Your task to perform on an android device: uninstall "Google Sheets" Image 0: 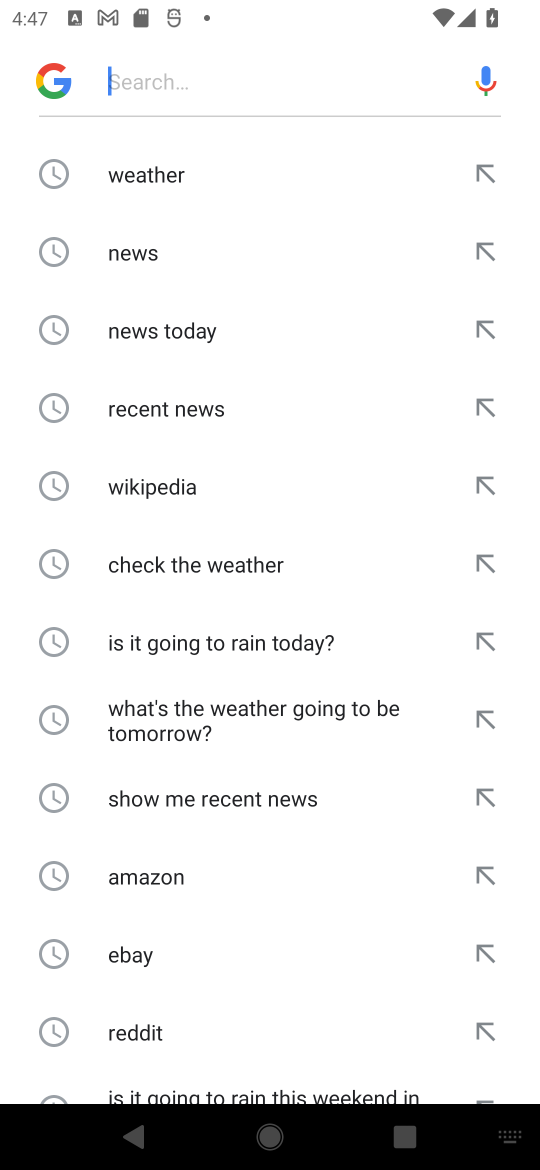
Step 0: press home button
Your task to perform on an android device: uninstall "Google Sheets" Image 1: 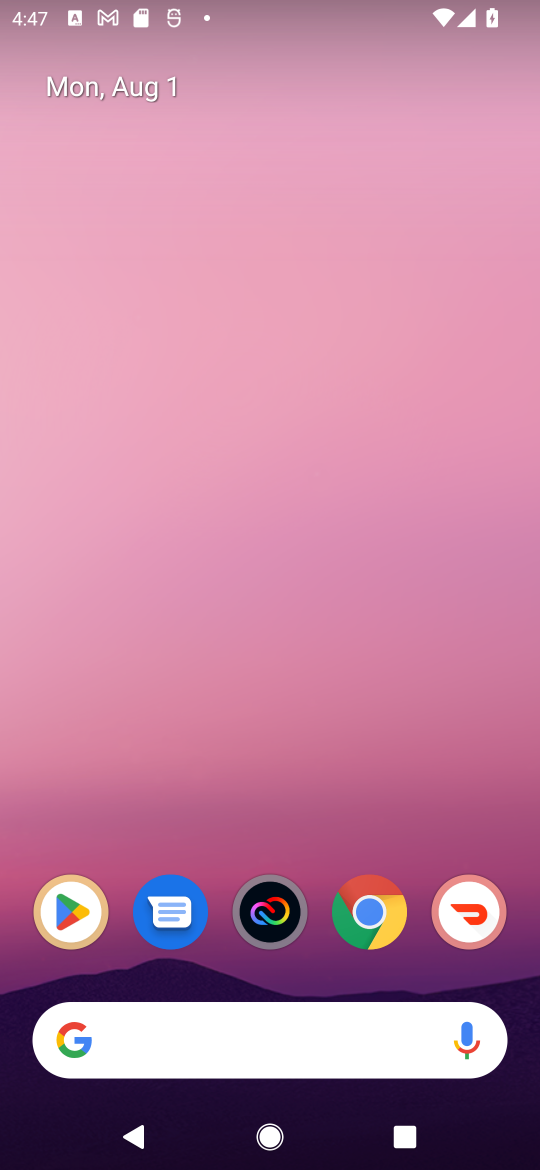
Step 1: click (86, 916)
Your task to perform on an android device: uninstall "Google Sheets" Image 2: 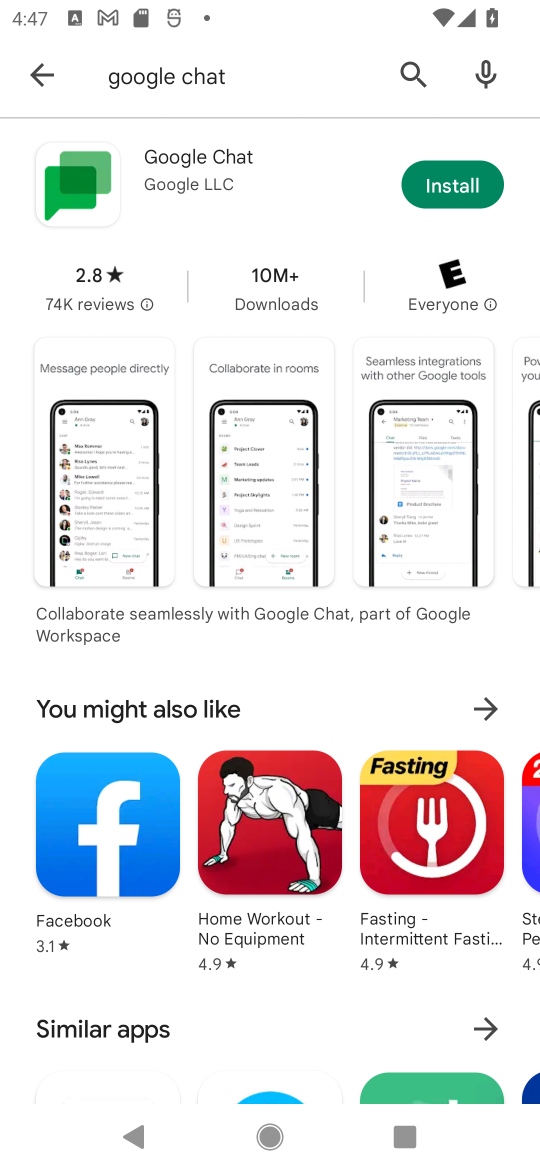
Step 2: click (411, 80)
Your task to perform on an android device: uninstall "Google Sheets" Image 3: 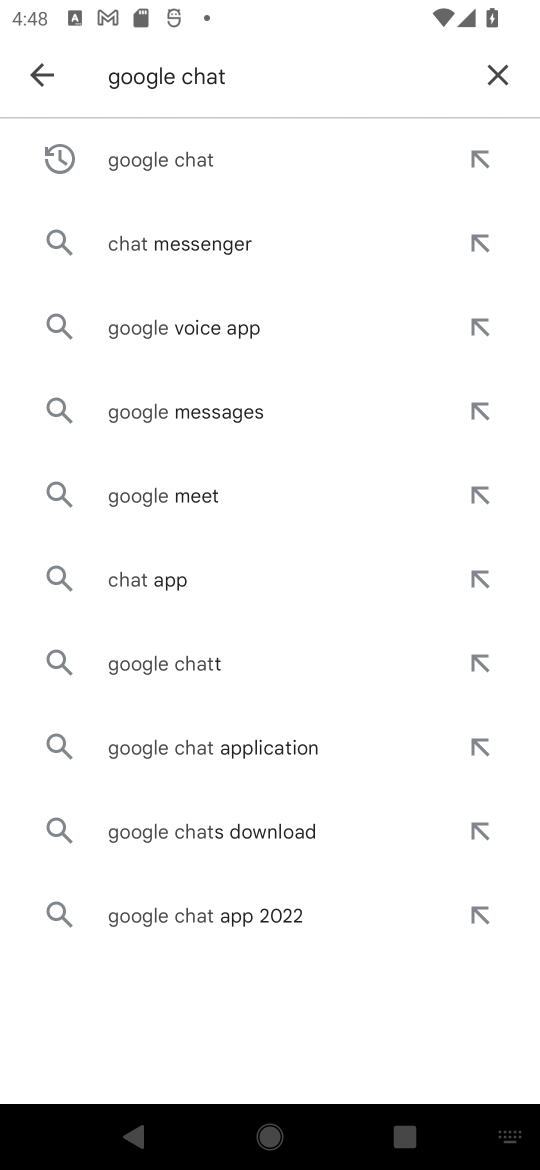
Step 3: click (506, 89)
Your task to perform on an android device: uninstall "Google Sheets" Image 4: 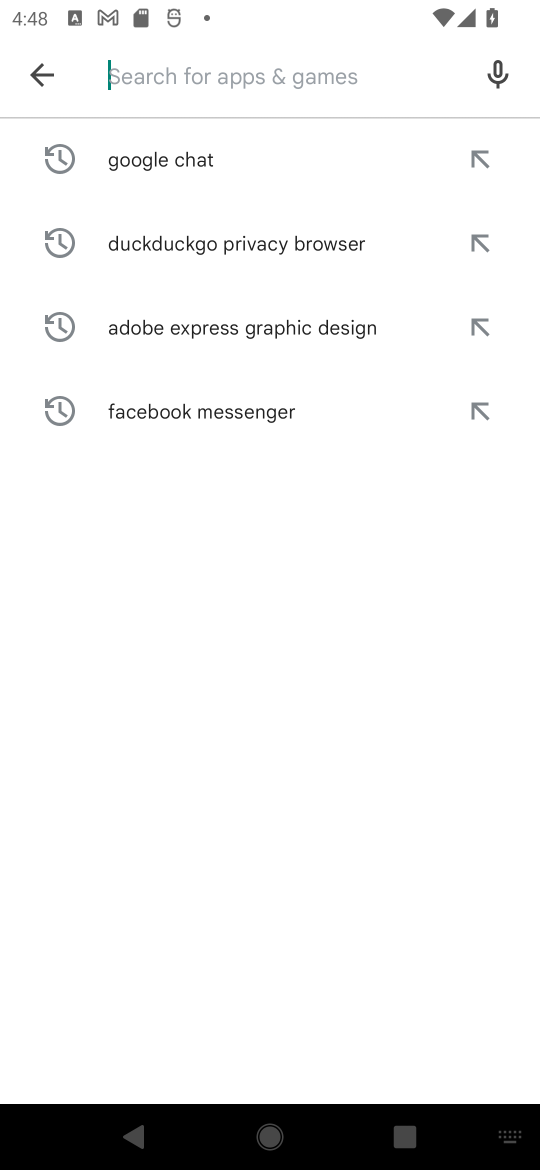
Step 4: type "Google Sheets"
Your task to perform on an android device: uninstall "Google Sheets" Image 5: 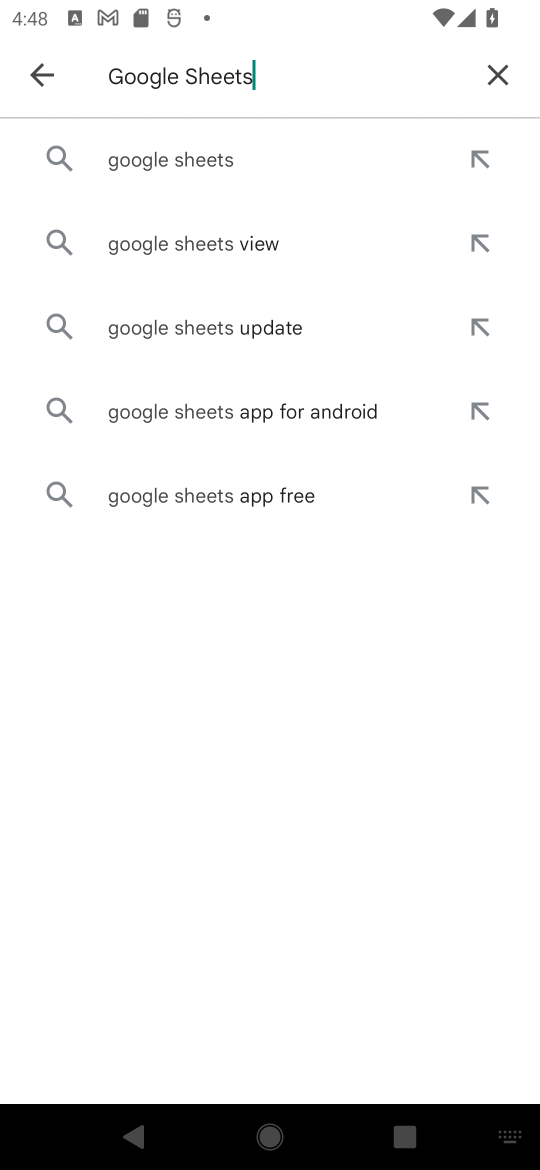
Step 5: click (193, 171)
Your task to perform on an android device: uninstall "Google Sheets" Image 6: 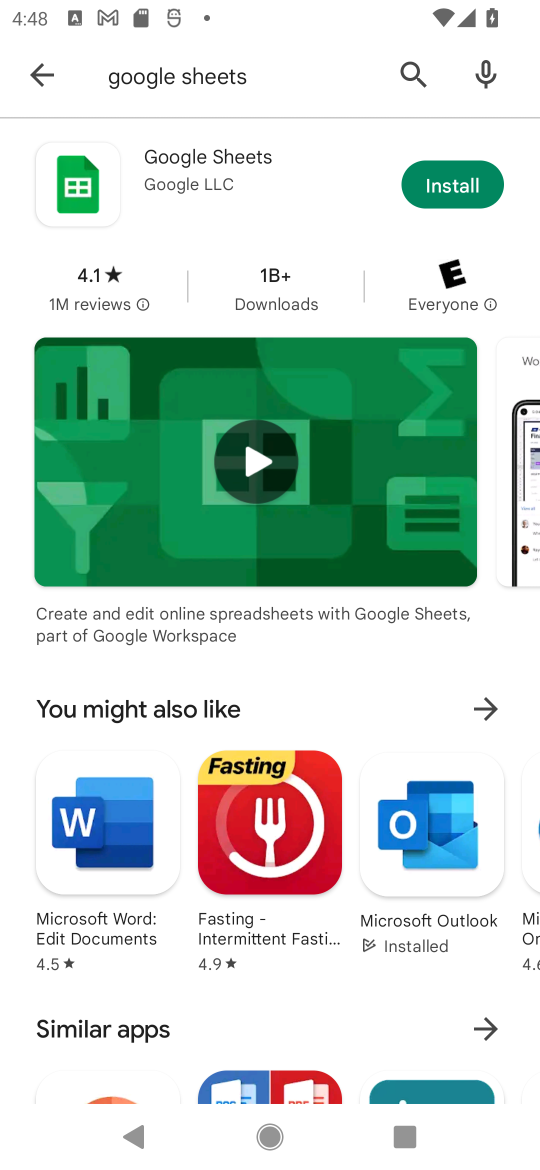
Step 6: task complete